Your task to perform on an android device: Open Google Chrome and open the bookmarks view Image 0: 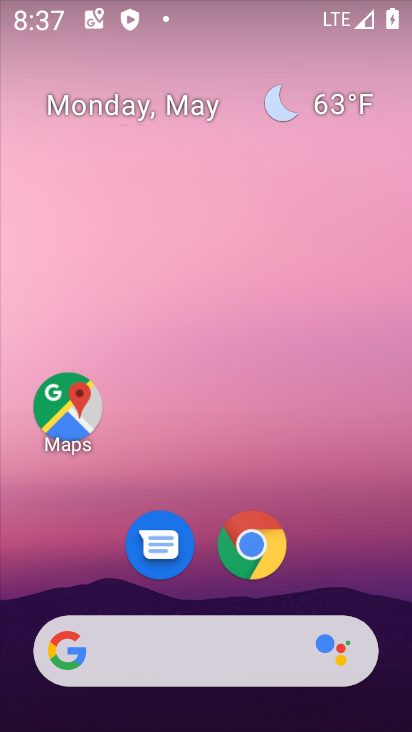
Step 0: click (241, 532)
Your task to perform on an android device: Open Google Chrome and open the bookmarks view Image 1: 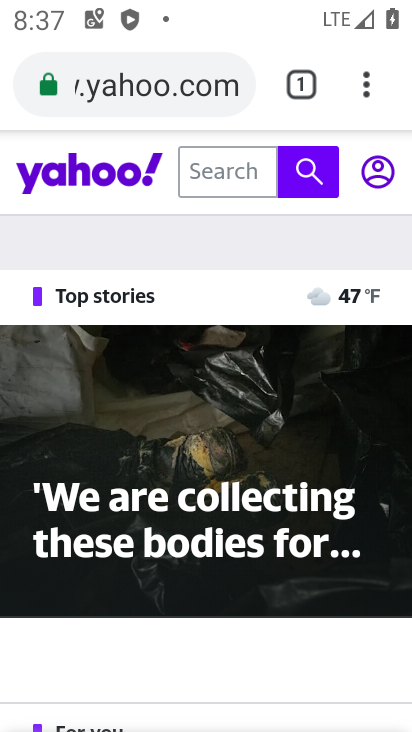
Step 1: drag from (362, 92) to (177, 323)
Your task to perform on an android device: Open Google Chrome and open the bookmarks view Image 2: 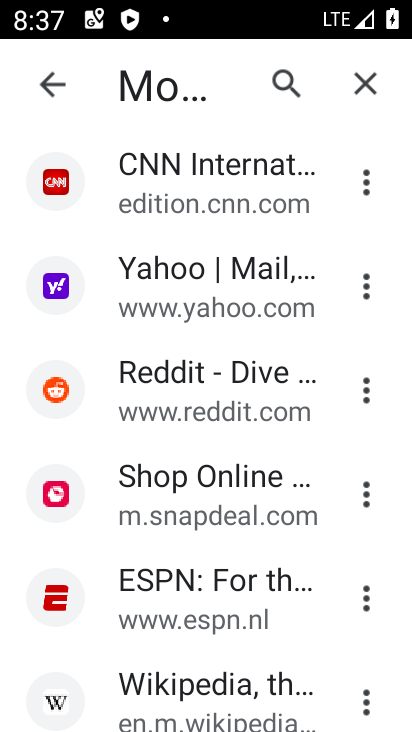
Step 2: click (213, 203)
Your task to perform on an android device: Open Google Chrome and open the bookmarks view Image 3: 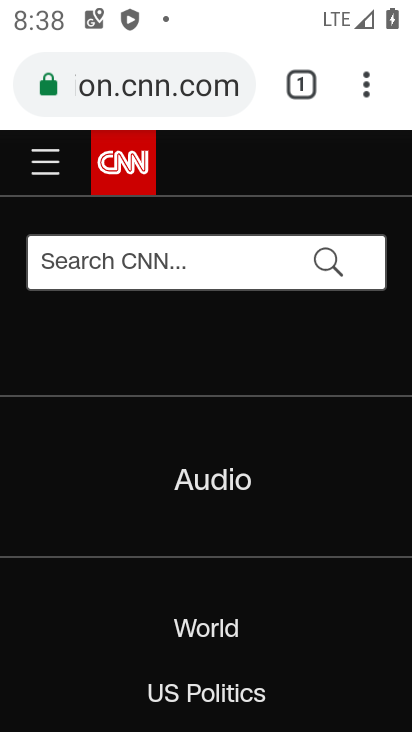
Step 3: task complete